Your task to perform on an android device: uninstall "Flipkart Online Shopping App" Image 0: 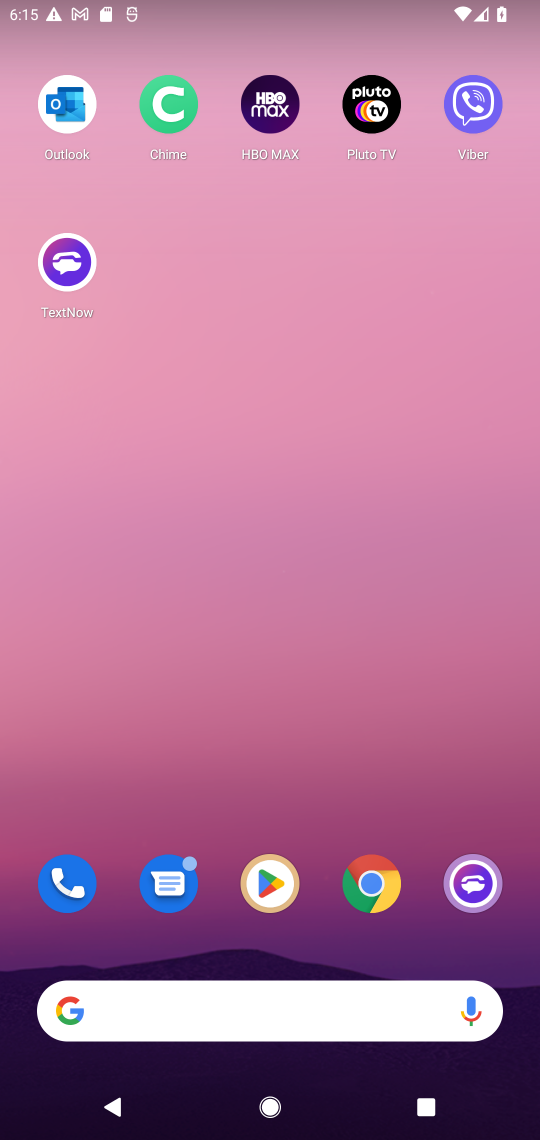
Step 0: click (279, 892)
Your task to perform on an android device: uninstall "Flipkart Online Shopping App" Image 1: 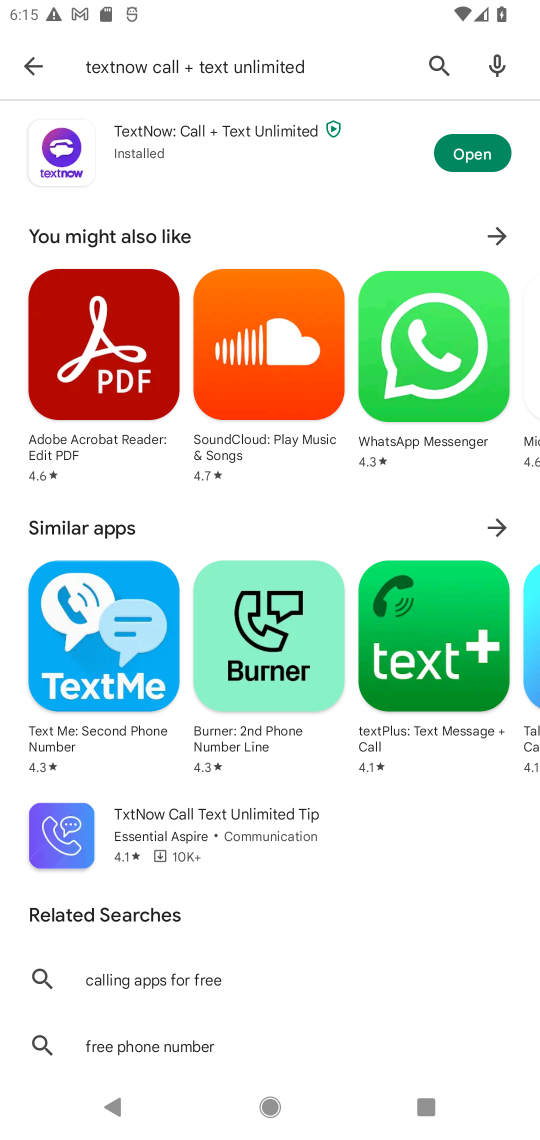
Step 1: click (439, 66)
Your task to perform on an android device: uninstall "Flipkart Online Shopping App" Image 2: 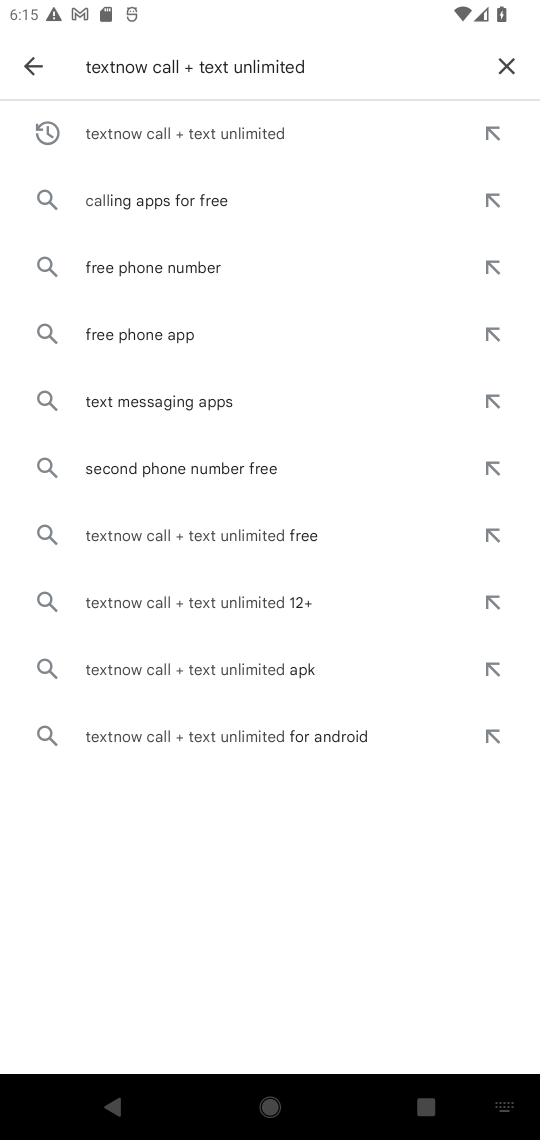
Step 2: type "Flipkart Online Shopping App"
Your task to perform on an android device: uninstall "Flipkart Online Shopping App" Image 3: 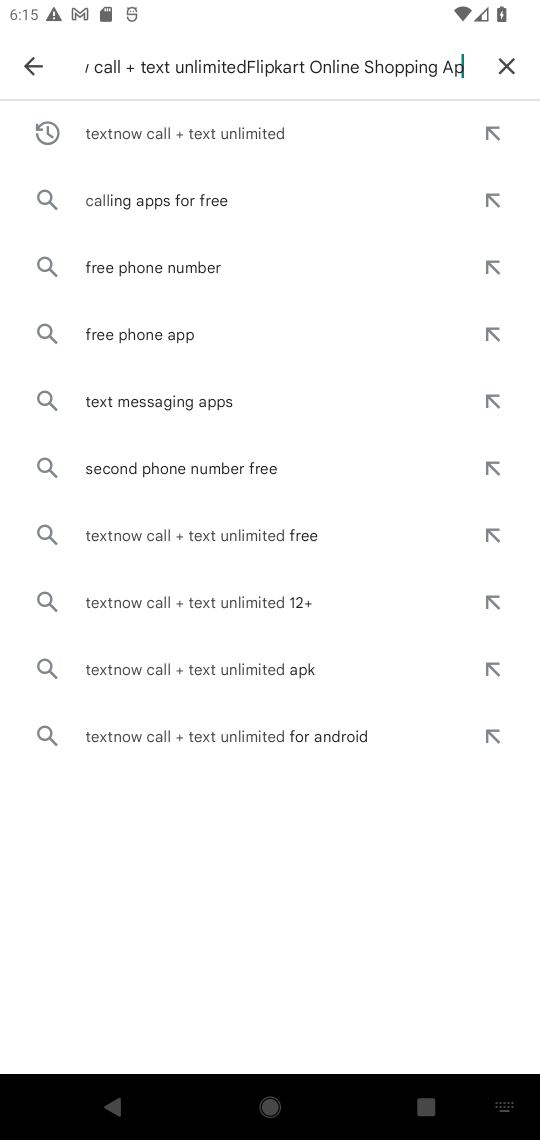
Step 3: type ""
Your task to perform on an android device: uninstall "Flipkart Online Shopping App" Image 4: 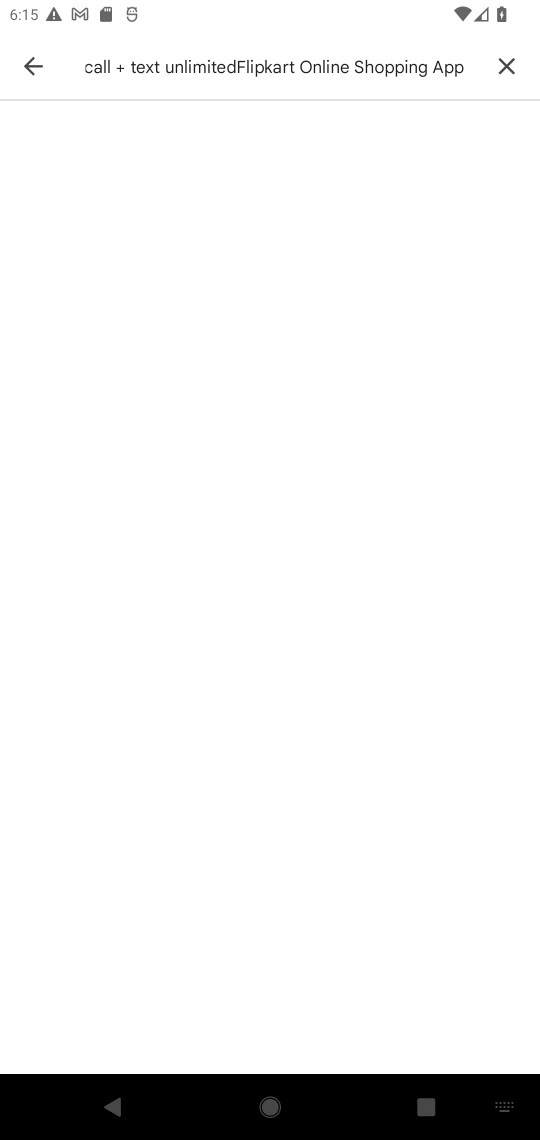
Step 4: click (495, 73)
Your task to perform on an android device: uninstall "Flipkart Online Shopping App" Image 5: 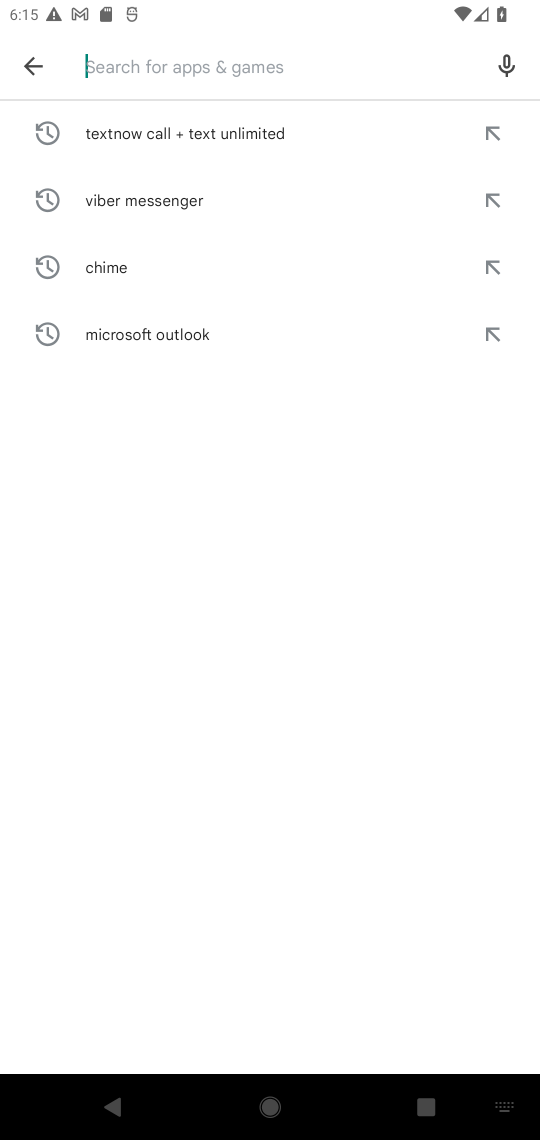
Step 5: type "Flipkart Online Shopping App"
Your task to perform on an android device: uninstall "Flipkart Online Shopping App" Image 6: 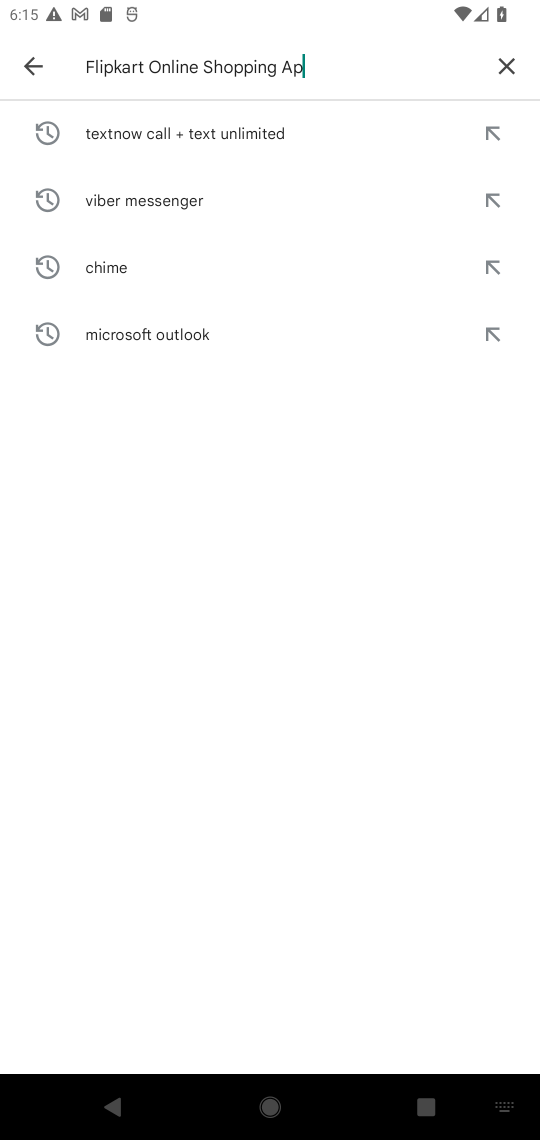
Step 6: type ""
Your task to perform on an android device: uninstall "Flipkart Online Shopping App" Image 7: 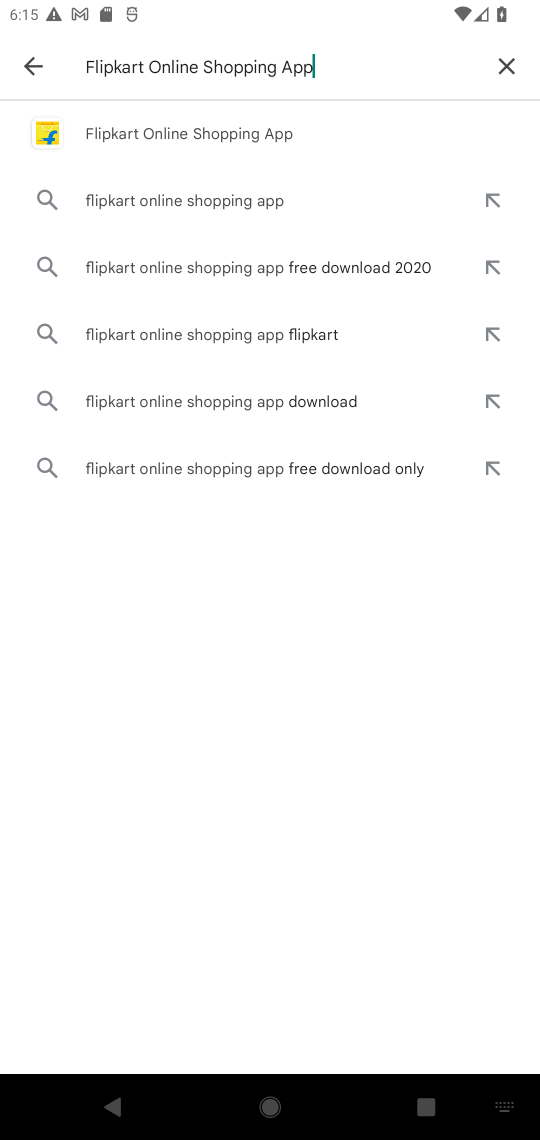
Step 7: click (192, 118)
Your task to perform on an android device: uninstall "Flipkart Online Shopping App" Image 8: 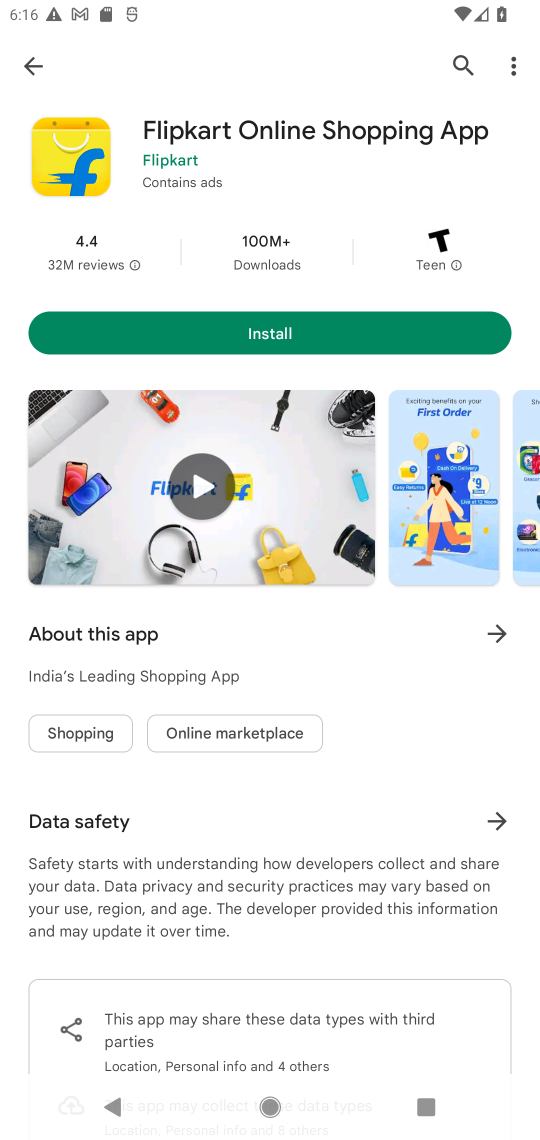
Step 8: task complete